Your task to perform on an android device: Do I have any events today? Image 0: 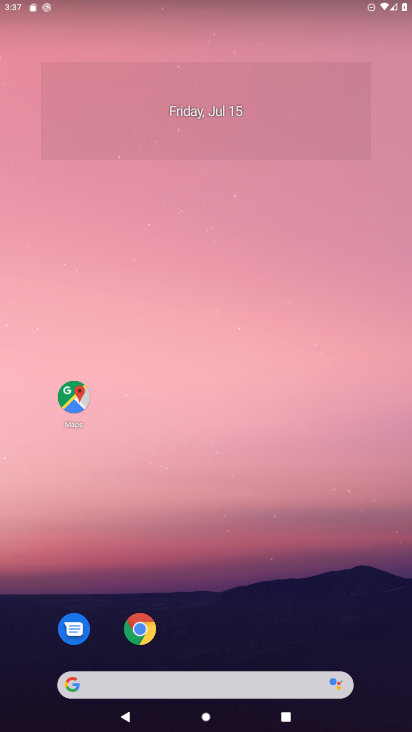
Step 0: drag from (320, 412) to (323, 78)
Your task to perform on an android device: Do I have any events today? Image 1: 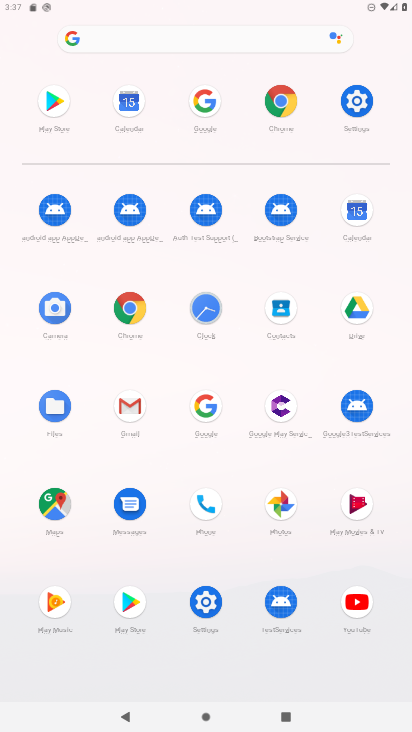
Step 1: click (358, 208)
Your task to perform on an android device: Do I have any events today? Image 2: 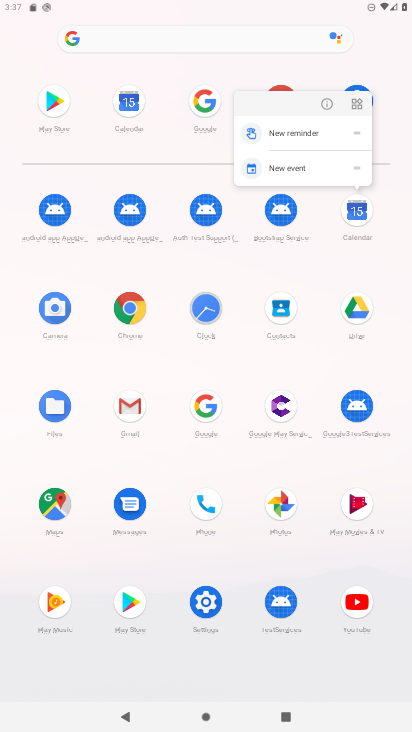
Step 2: click (353, 214)
Your task to perform on an android device: Do I have any events today? Image 3: 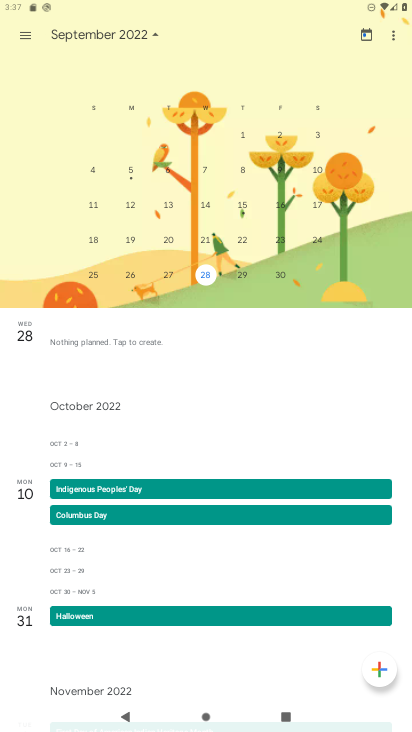
Step 3: task complete